Your task to perform on an android device: What's the weather? Image 0: 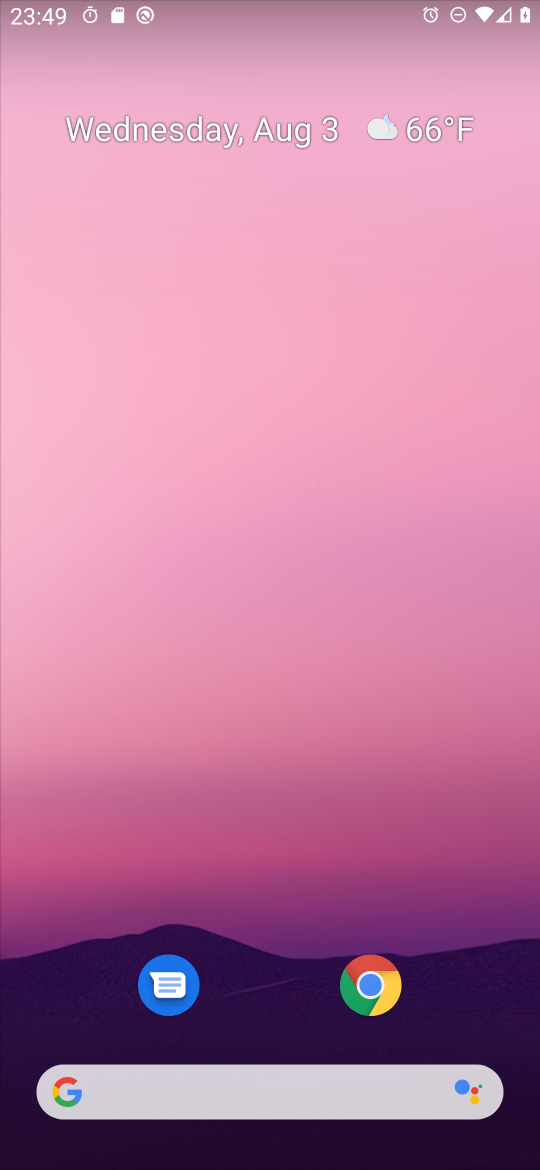
Step 0: drag from (275, 1012) to (275, 187)
Your task to perform on an android device: What's the weather? Image 1: 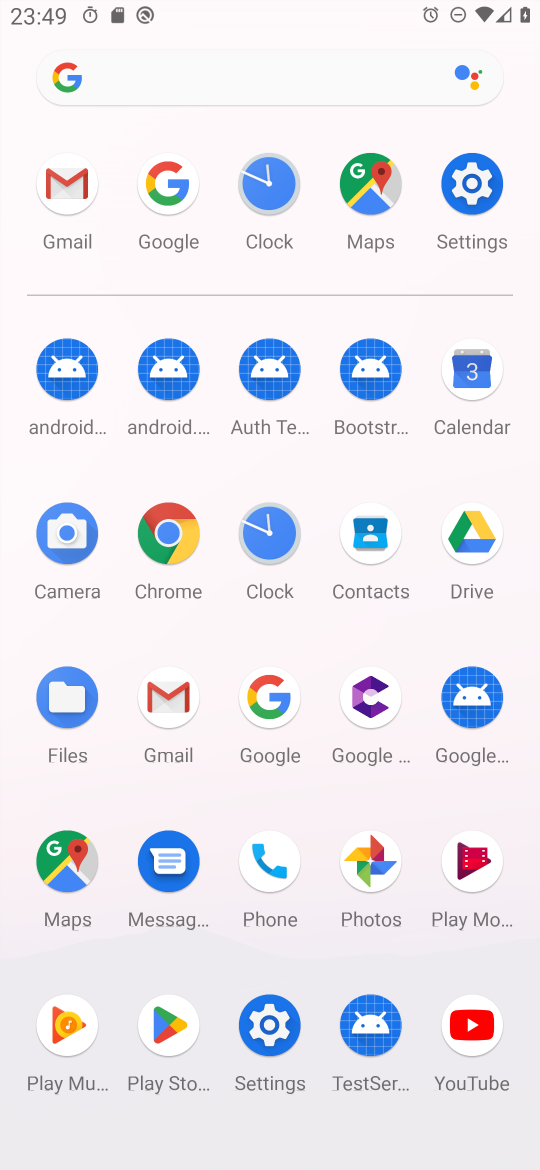
Step 1: click (179, 178)
Your task to perform on an android device: What's the weather? Image 2: 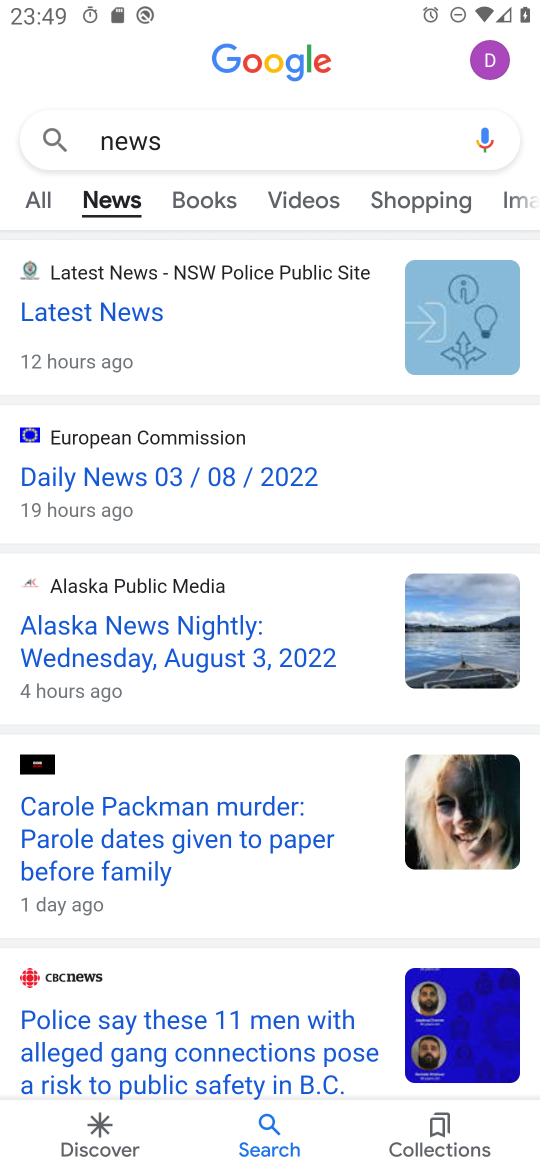
Step 2: click (251, 139)
Your task to perform on an android device: What's the weather? Image 3: 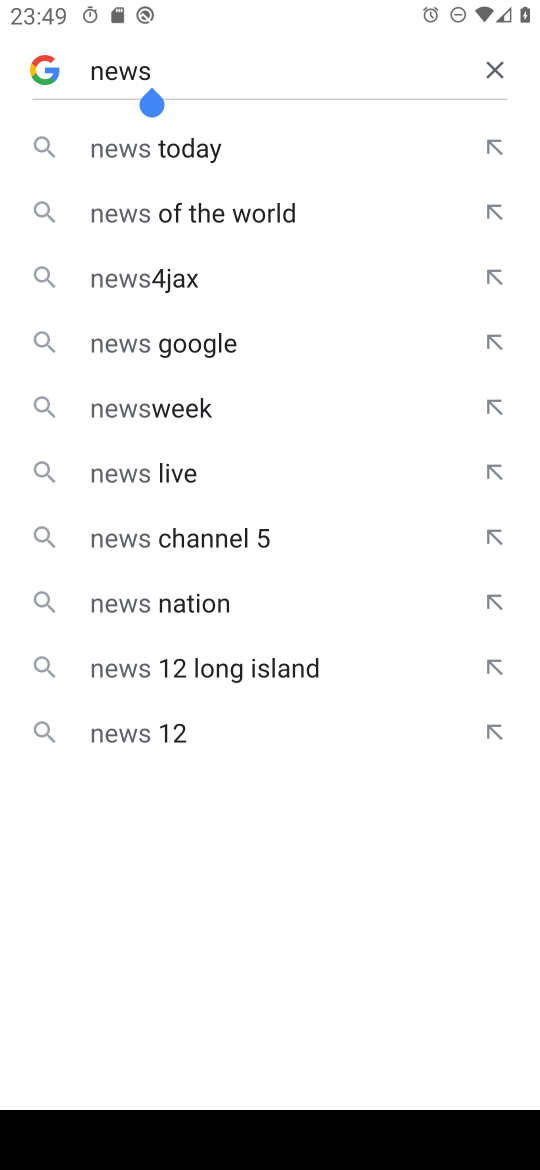
Step 3: click (466, 61)
Your task to perform on an android device: What's the weather? Image 4: 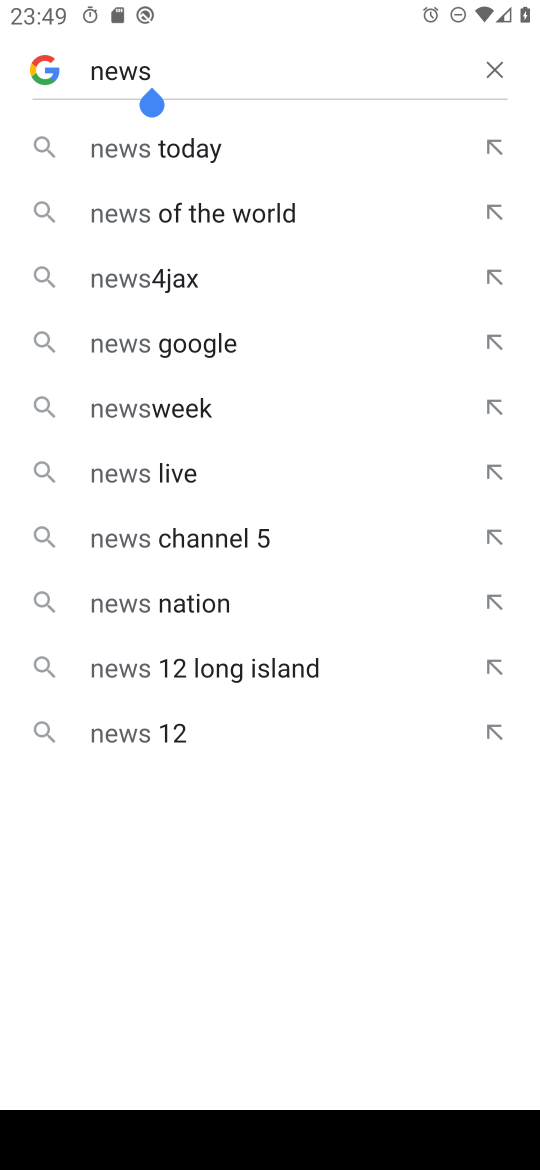
Step 4: click (488, 70)
Your task to perform on an android device: What's the weather? Image 5: 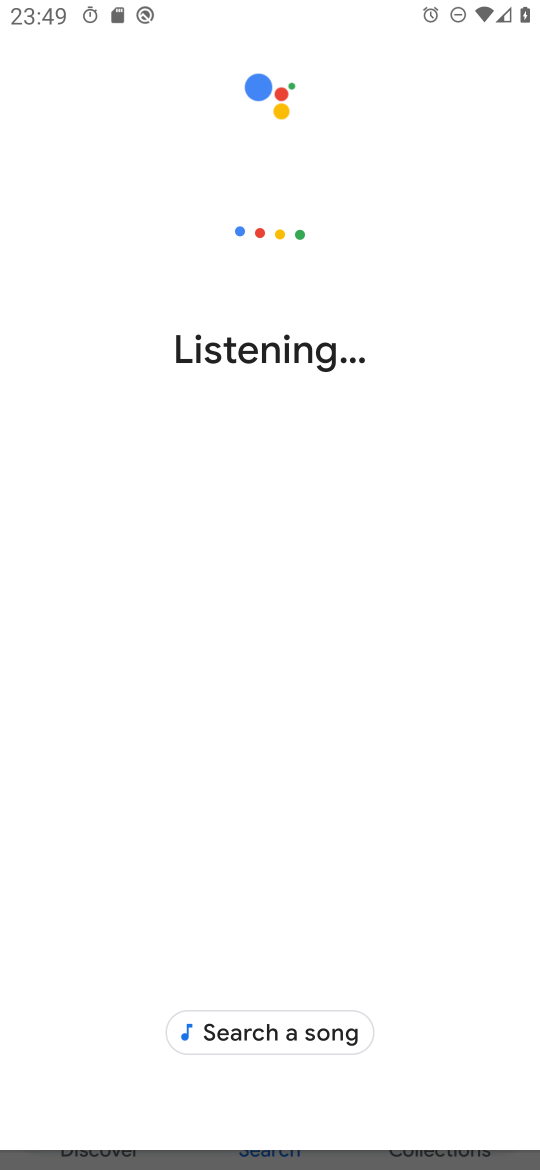
Step 5: press back button
Your task to perform on an android device: What's the weather? Image 6: 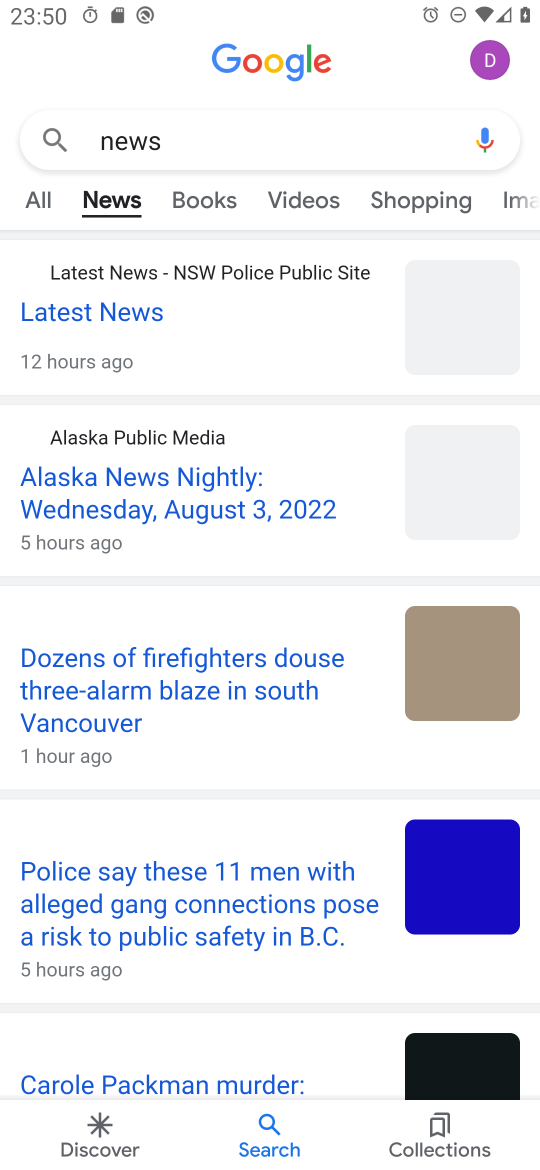
Step 6: click (197, 130)
Your task to perform on an android device: What's the weather? Image 7: 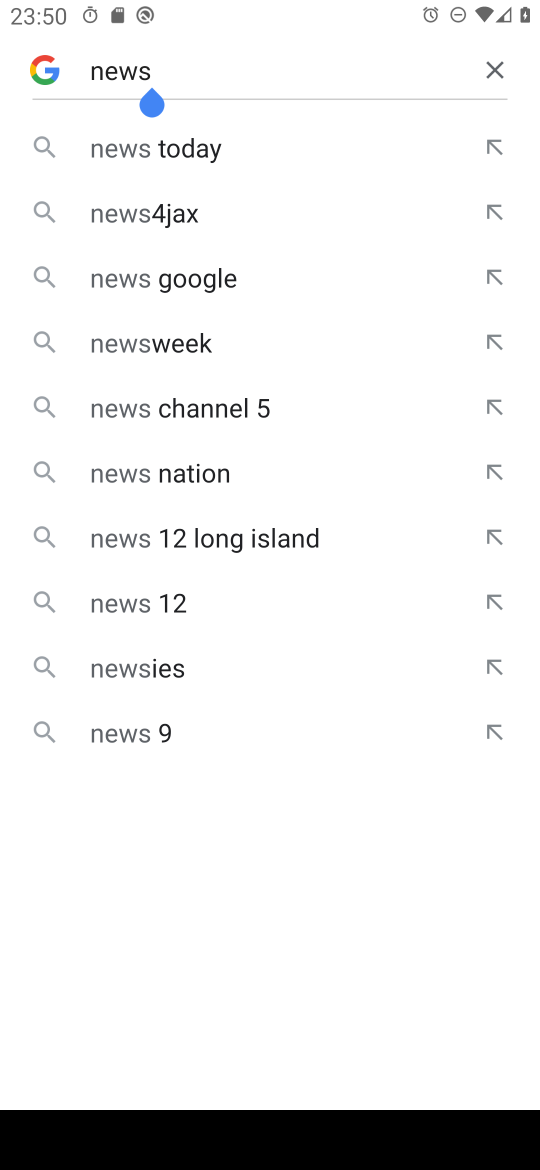
Step 7: click (494, 75)
Your task to perform on an android device: What's the weather? Image 8: 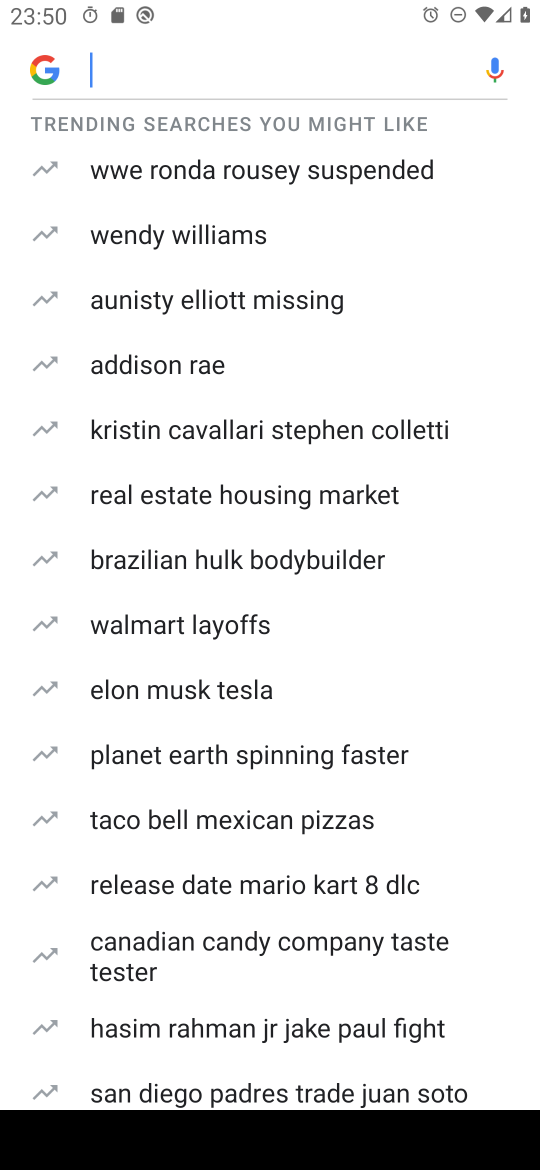
Step 8: type "weather"
Your task to perform on an android device: What's the weather? Image 9: 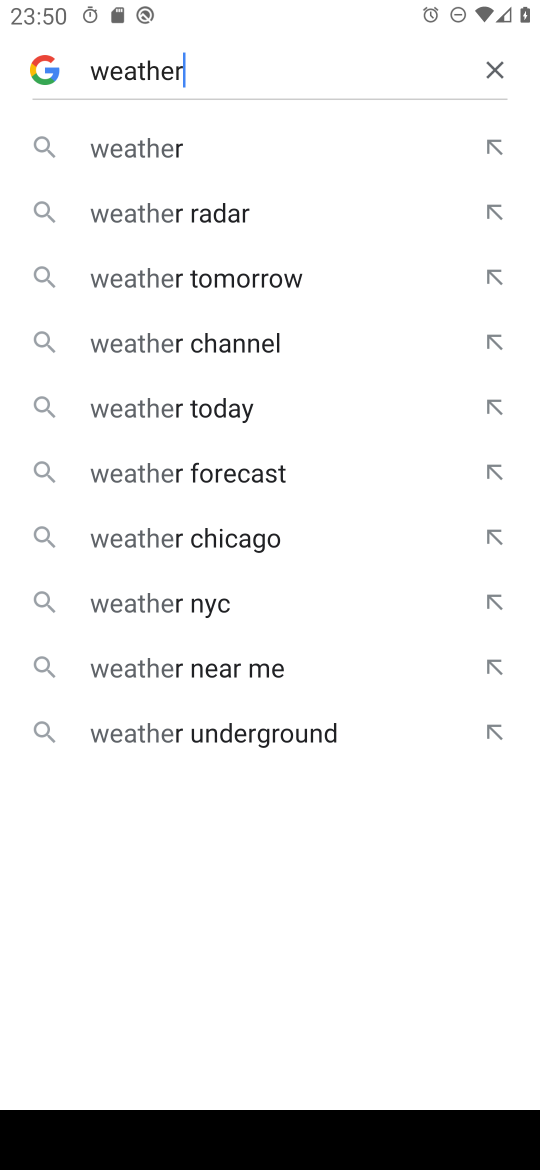
Step 9: type ""
Your task to perform on an android device: What's the weather? Image 10: 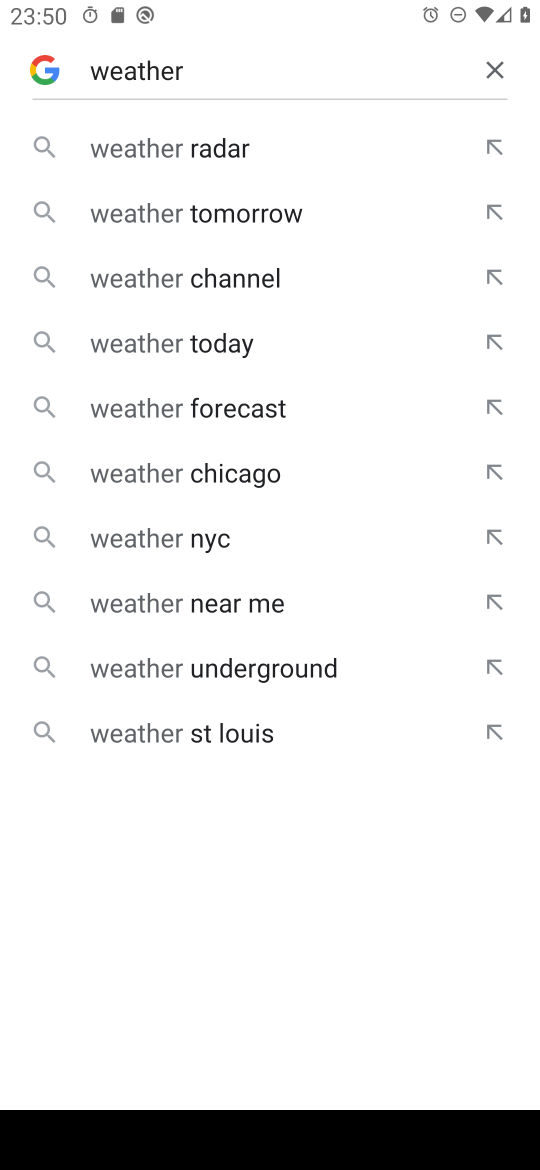
Step 10: click (205, 209)
Your task to perform on an android device: What's the weather? Image 11: 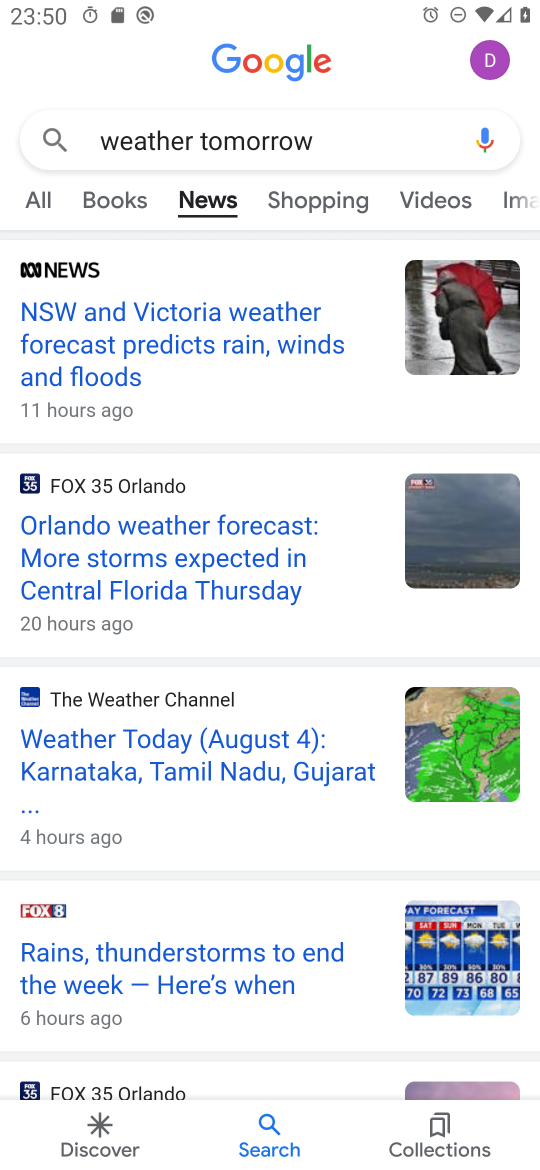
Step 11: click (56, 191)
Your task to perform on an android device: What's the weather? Image 12: 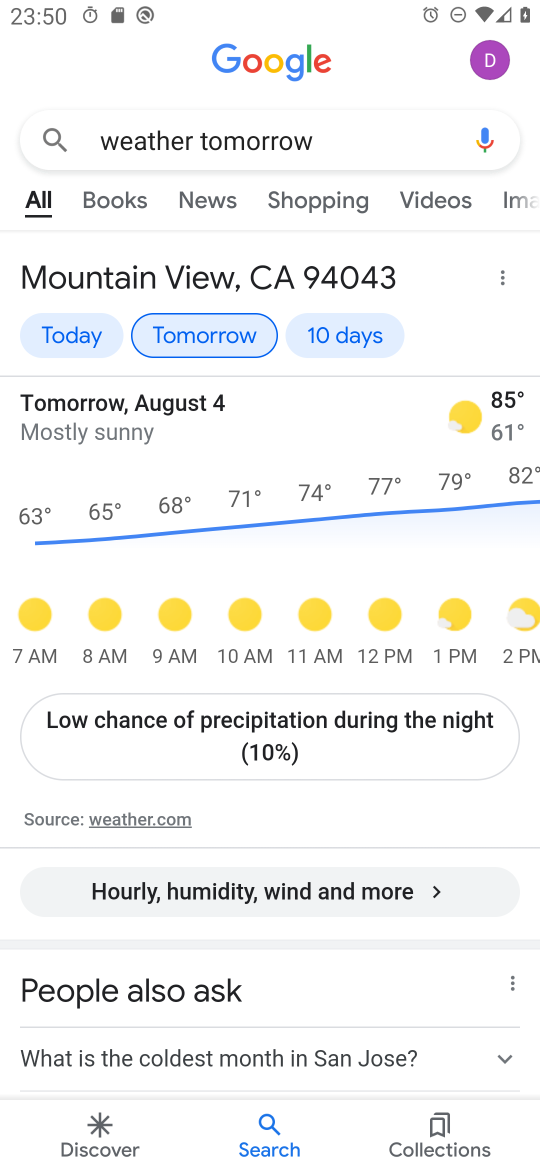
Step 12: click (36, 319)
Your task to perform on an android device: What's the weather? Image 13: 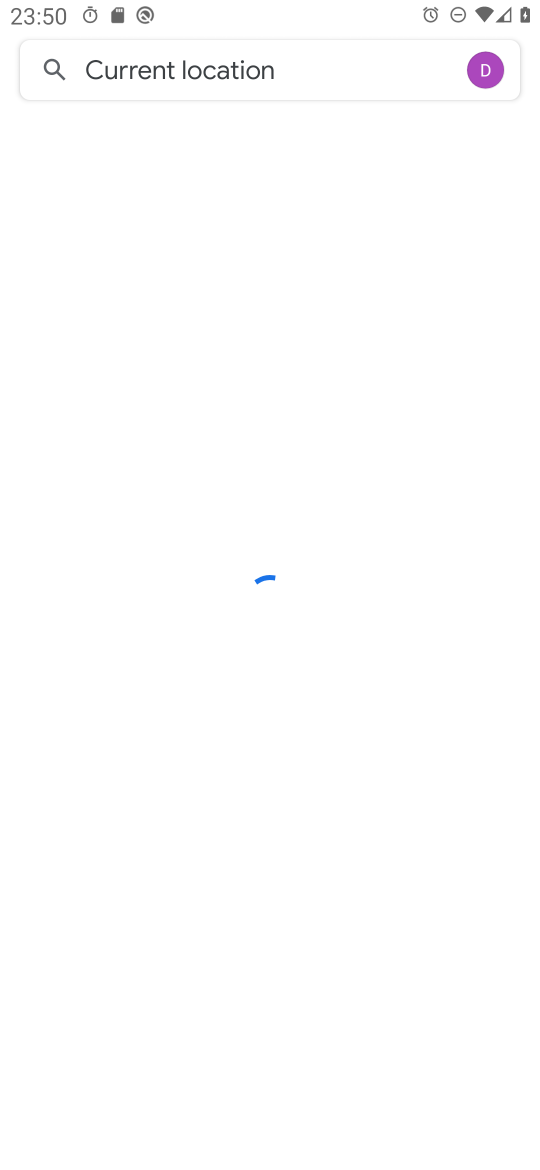
Step 13: task complete